Your task to perform on an android device: Search for seafood restaurants on Google Maps Image 0: 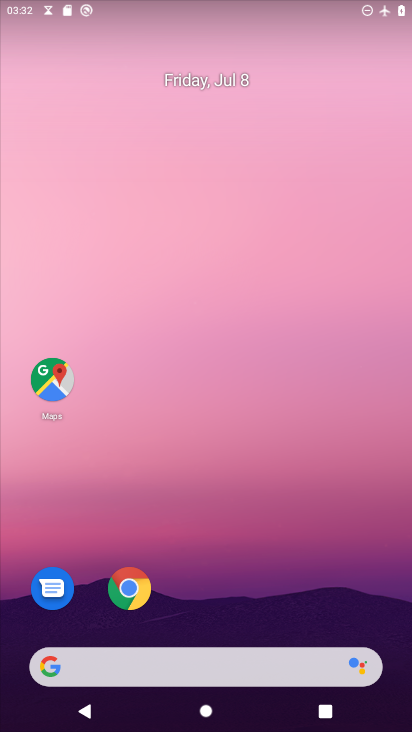
Step 0: click (36, 383)
Your task to perform on an android device: Search for seafood restaurants on Google Maps Image 1: 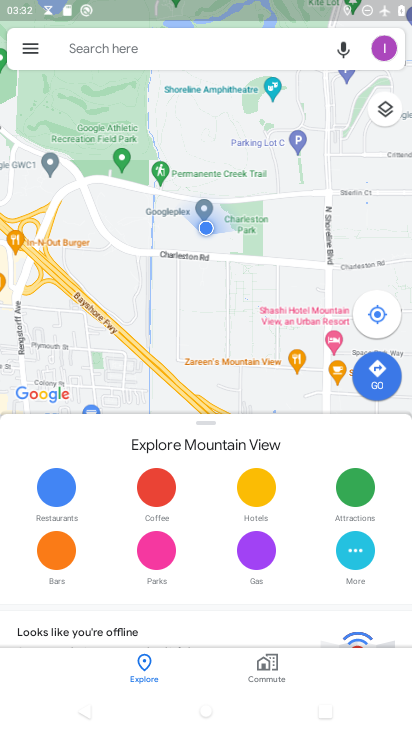
Step 1: click (160, 47)
Your task to perform on an android device: Search for seafood restaurants on Google Maps Image 2: 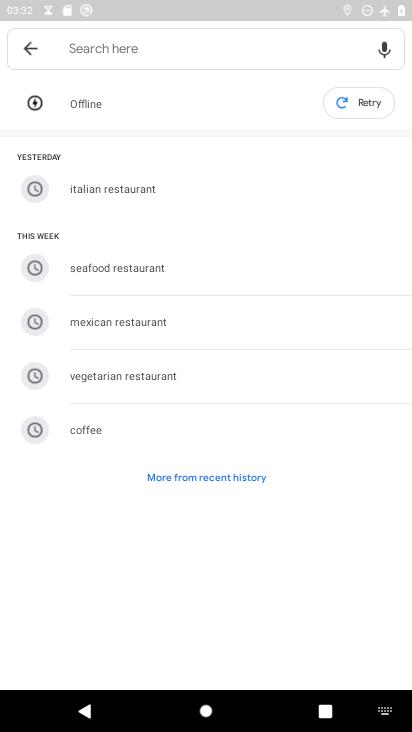
Step 2: click (170, 287)
Your task to perform on an android device: Search for seafood restaurants on Google Maps Image 3: 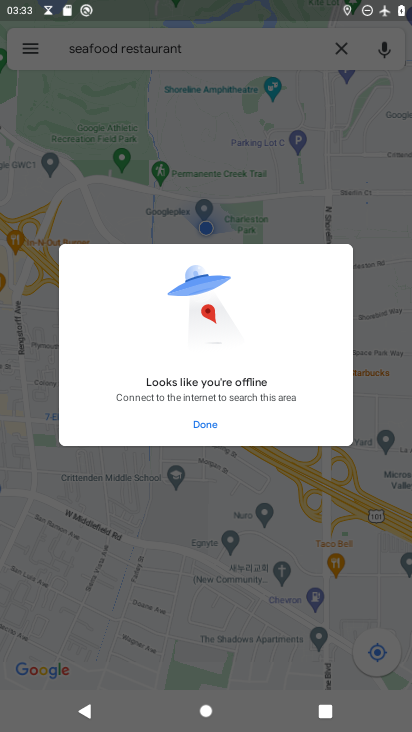
Step 3: click (150, 268)
Your task to perform on an android device: Search for seafood restaurants on Google Maps Image 4: 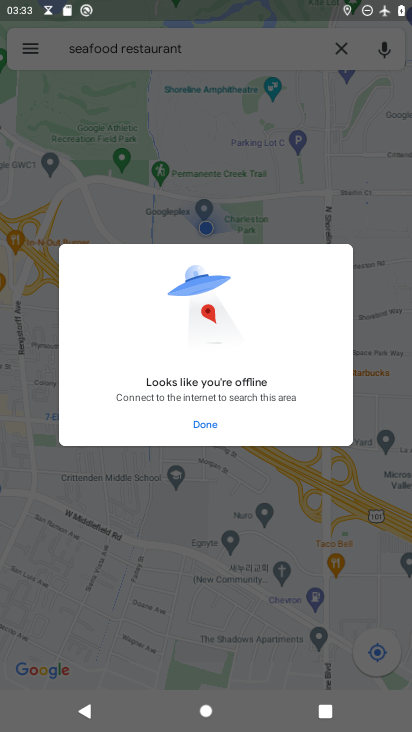
Step 4: press back button
Your task to perform on an android device: Search for seafood restaurants on Google Maps Image 5: 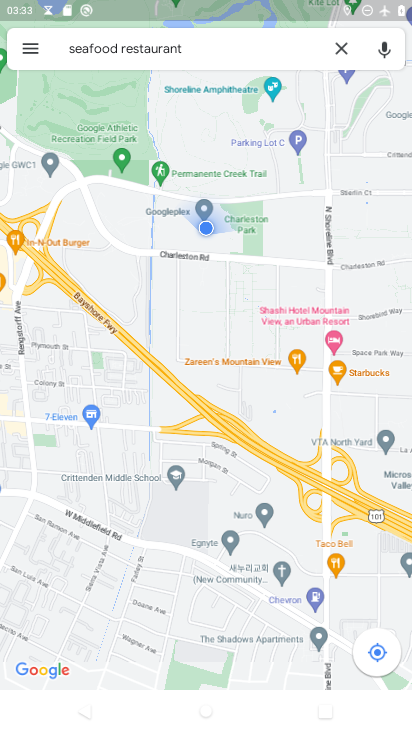
Step 5: press back button
Your task to perform on an android device: Search for seafood restaurants on Google Maps Image 6: 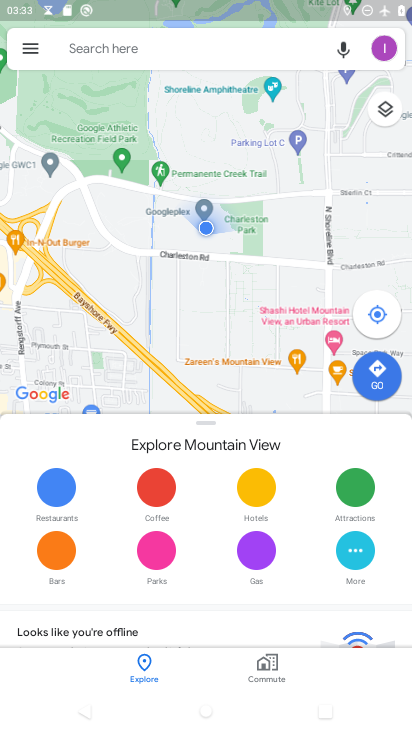
Step 6: press back button
Your task to perform on an android device: Search for seafood restaurants on Google Maps Image 7: 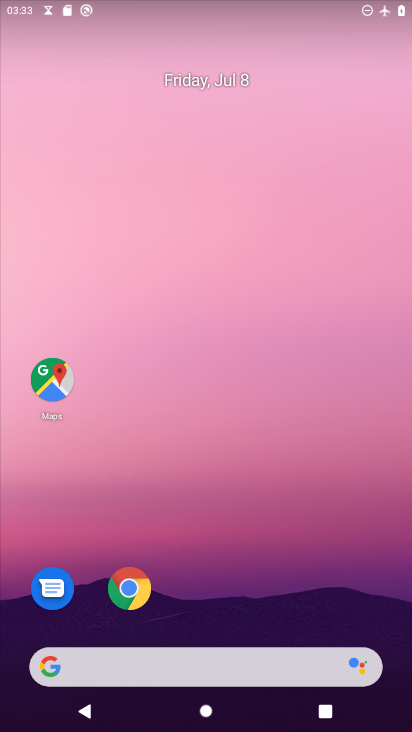
Step 7: drag from (183, 603) to (168, 110)
Your task to perform on an android device: Search for seafood restaurants on Google Maps Image 8: 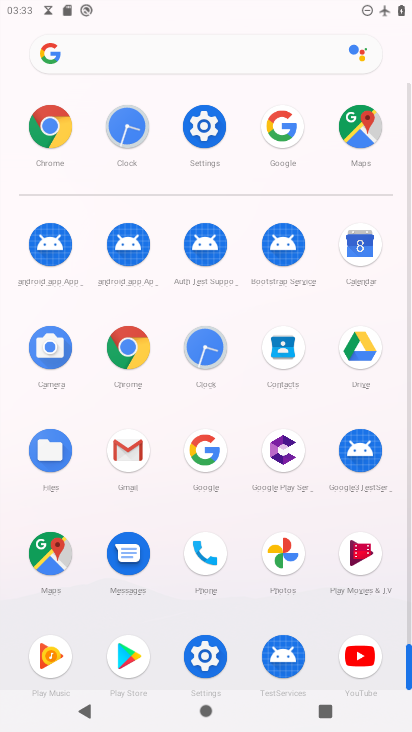
Step 8: click (204, 122)
Your task to perform on an android device: Search for seafood restaurants on Google Maps Image 9: 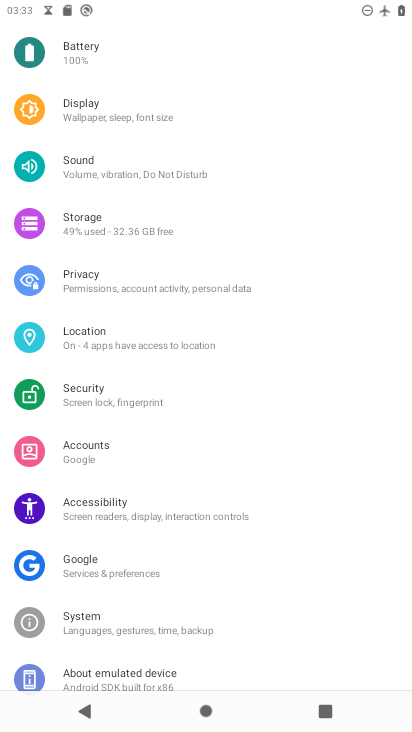
Step 9: drag from (254, 150) to (245, 523)
Your task to perform on an android device: Search for seafood restaurants on Google Maps Image 10: 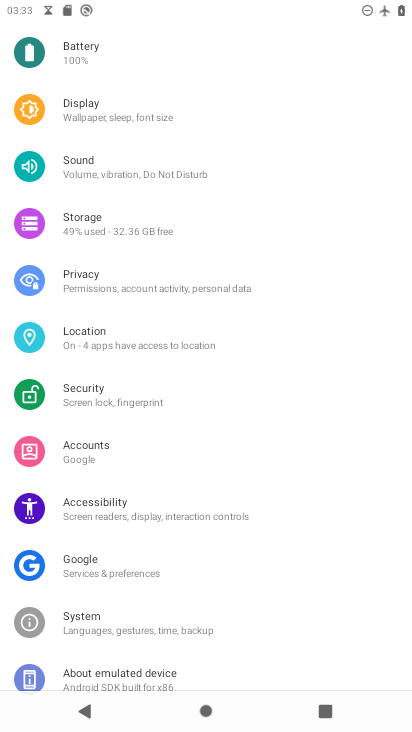
Step 10: drag from (248, 260) to (235, 479)
Your task to perform on an android device: Search for seafood restaurants on Google Maps Image 11: 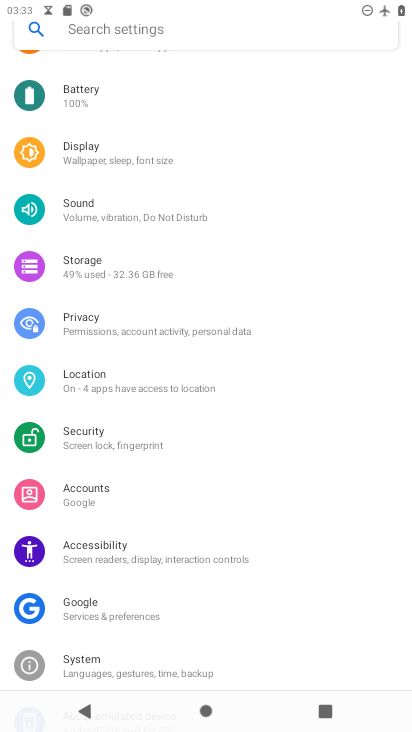
Step 11: drag from (162, 162) to (162, 435)
Your task to perform on an android device: Search for seafood restaurants on Google Maps Image 12: 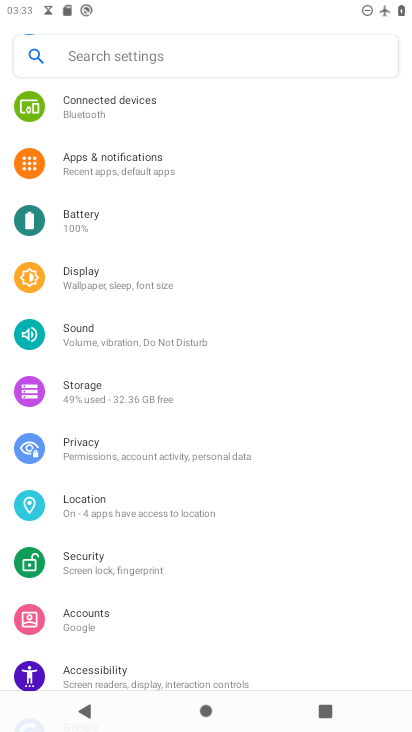
Step 12: drag from (159, 450) to (159, 587)
Your task to perform on an android device: Search for seafood restaurants on Google Maps Image 13: 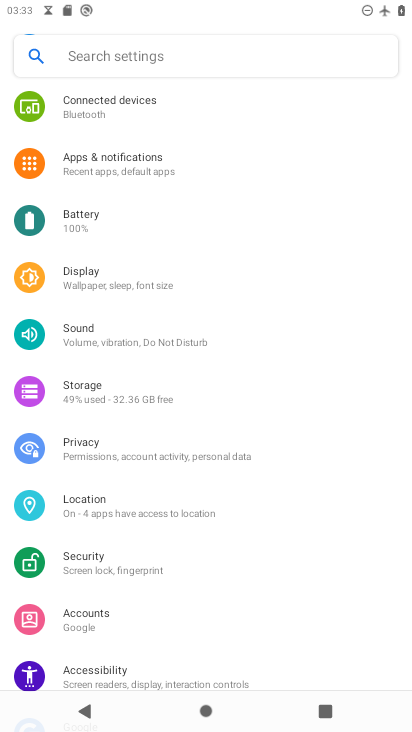
Step 13: drag from (198, 180) to (178, 631)
Your task to perform on an android device: Search for seafood restaurants on Google Maps Image 14: 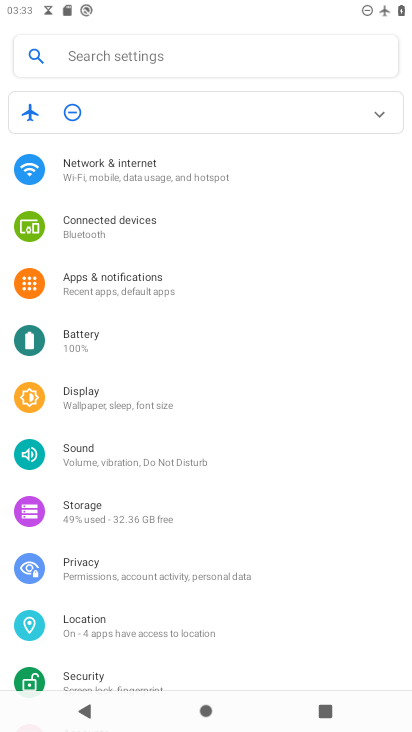
Step 14: click (379, 112)
Your task to perform on an android device: Search for seafood restaurants on Google Maps Image 15: 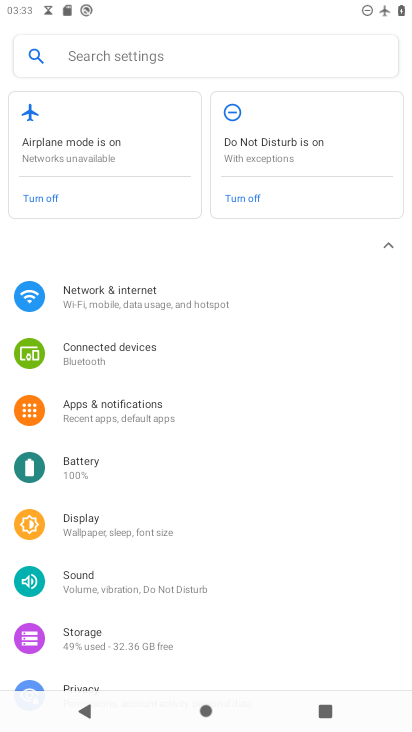
Step 15: click (257, 194)
Your task to perform on an android device: Search for seafood restaurants on Google Maps Image 16: 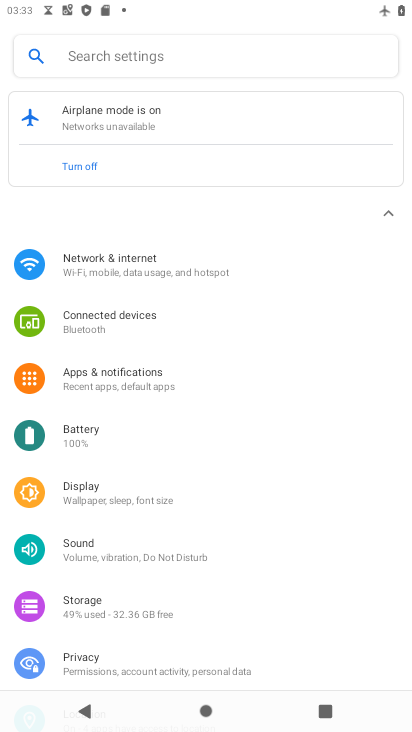
Step 16: click (72, 161)
Your task to perform on an android device: Search for seafood restaurants on Google Maps Image 17: 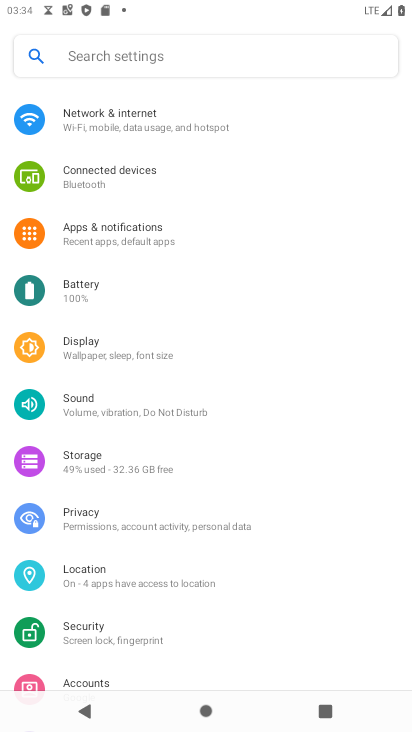
Step 17: press back button
Your task to perform on an android device: Search for seafood restaurants on Google Maps Image 18: 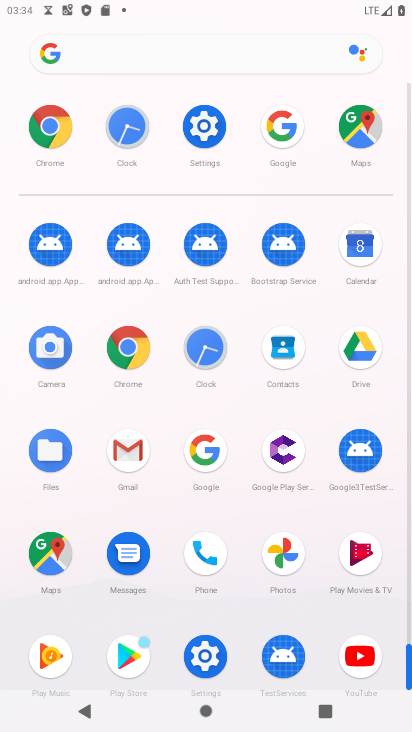
Step 18: press back button
Your task to perform on an android device: Search for seafood restaurants on Google Maps Image 19: 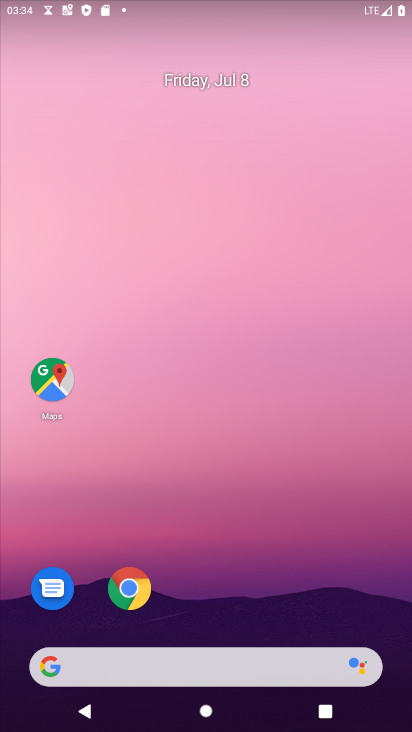
Step 19: click (51, 381)
Your task to perform on an android device: Search for seafood restaurants on Google Maps Image 20: 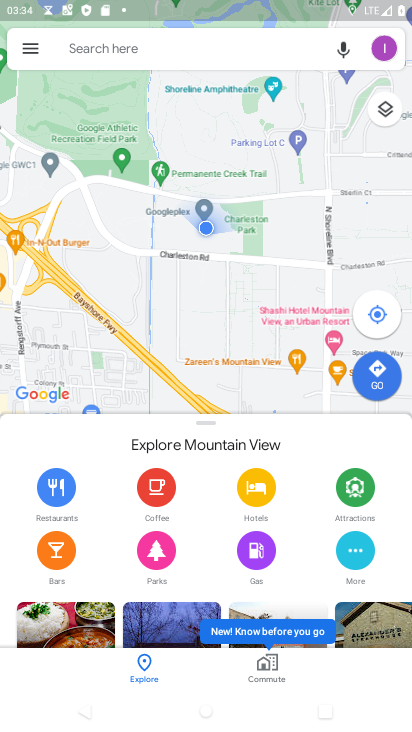
Step 20: click (123, 45)
Your task to perform on an android device: Search for seafood restaurants on Google Maps Image 21: 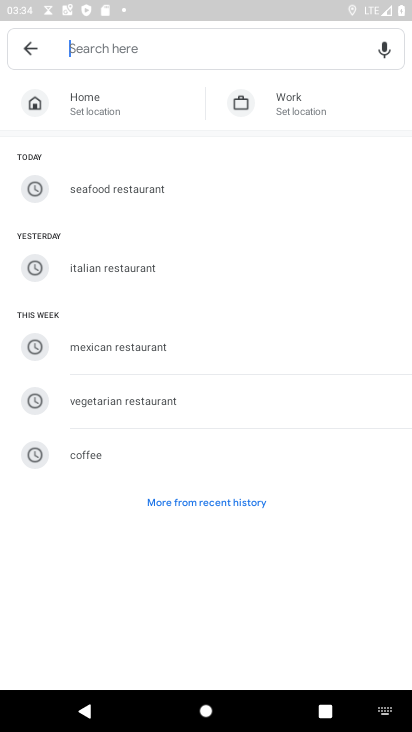
Step 21: type "seafood restaurants"
Your task to perform on an android device: Search for seafood restaurants on Google Maps Image 22: 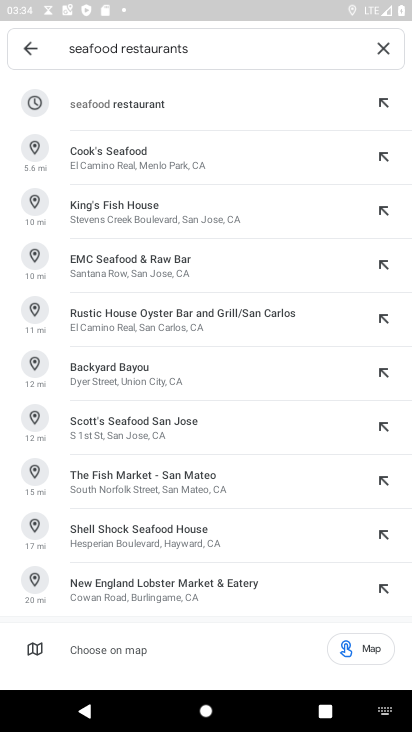
Step 22: click (120, 99)
Your task to perform on an android device: Search for seafood restaurants on Google Maps Image 23: 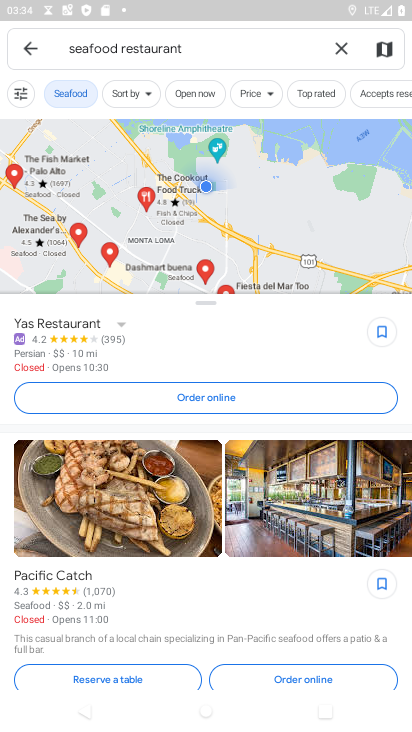
Step 23: task complete